Your task to perform on an android device: toggle translation in the chrome app Image 0: 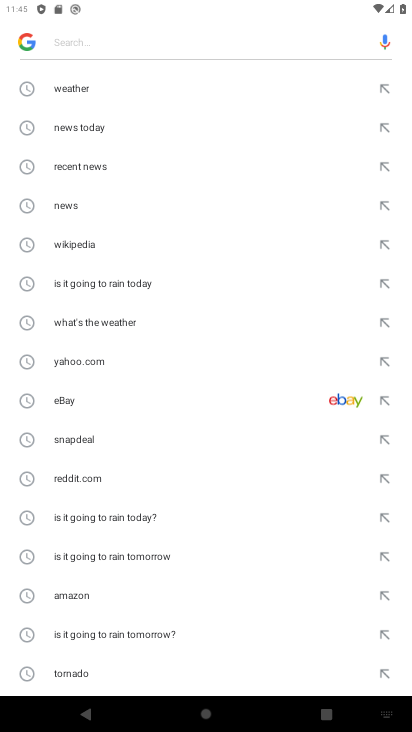
Step 0: press home button
Your task to perform on an android device: toggle translation in the chrome app Image 1: 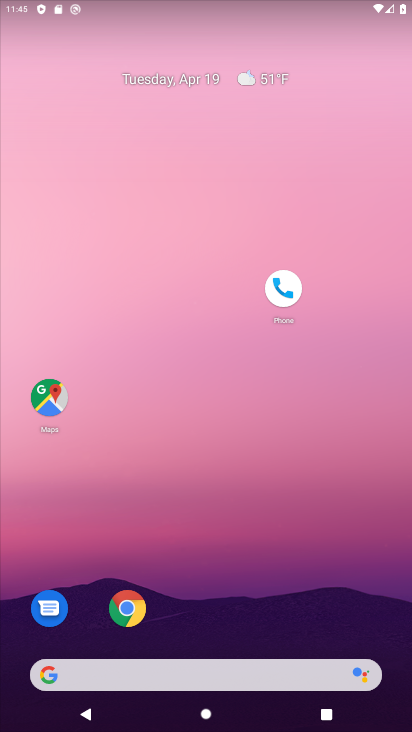
Step 1: click (129, 612)
Your task to perform on an android device: toggle translation in the chrome app Image 2: 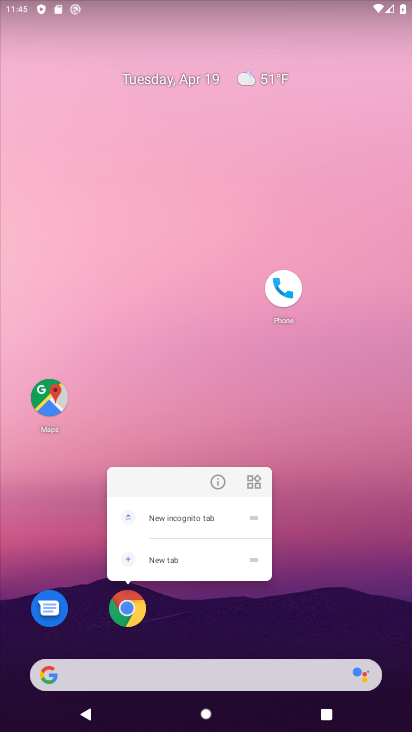
Step 2: click (137, 606)
Your task to perform on an android device: toggle translation in the chrome app Image 3: 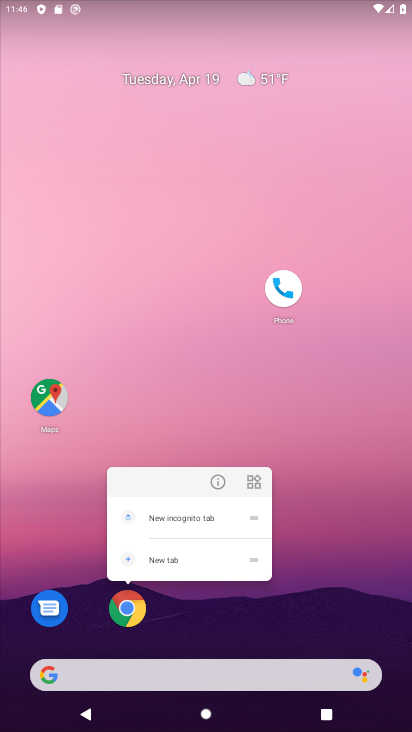
Step 3: click (129, 607)
Your task to perform on an android device: toggle translation in the chrome app Image 4: 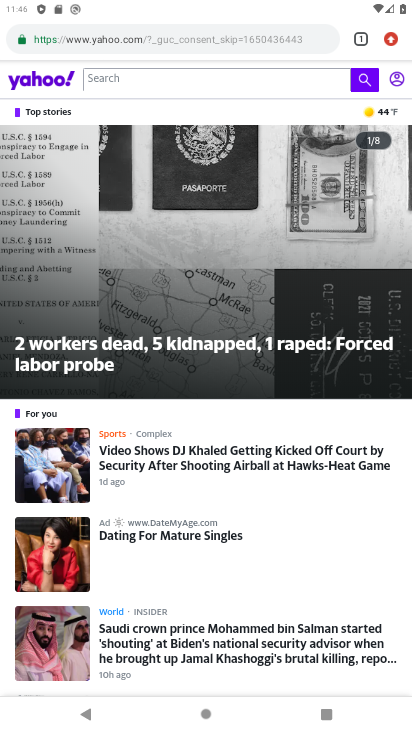
Step 4: click (388, 40)
Your task to perform on an android device: toggle translation in the chrome app Image 5: 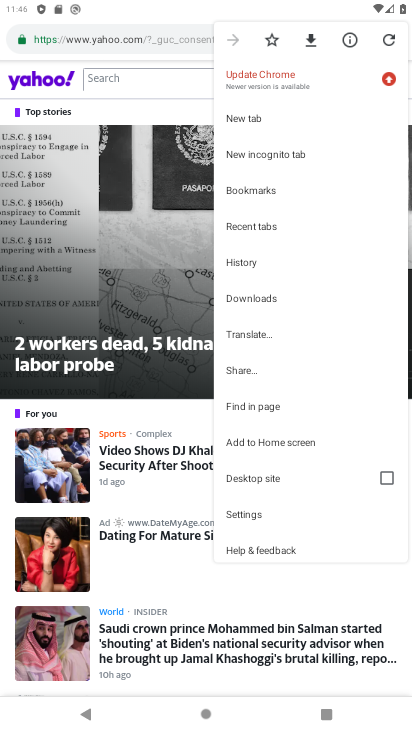
Step 5: click (243, 517)
Your task to perform on an android device: toggle translation in the chrome app Image 6: 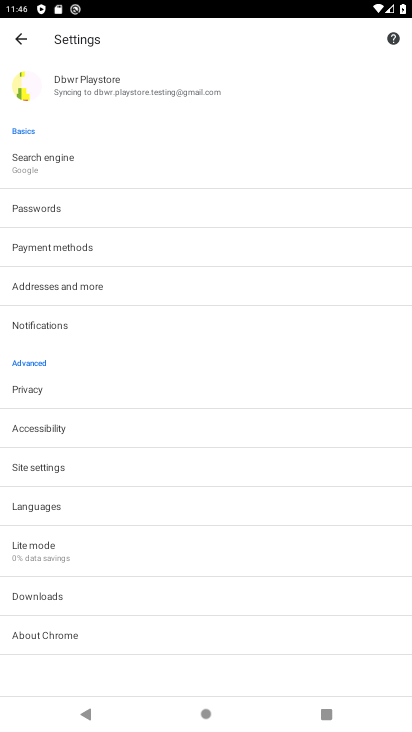
Step 6: click (201, 504)
Your task to perform on an android device: toggle translation in the chrome app Image 7: 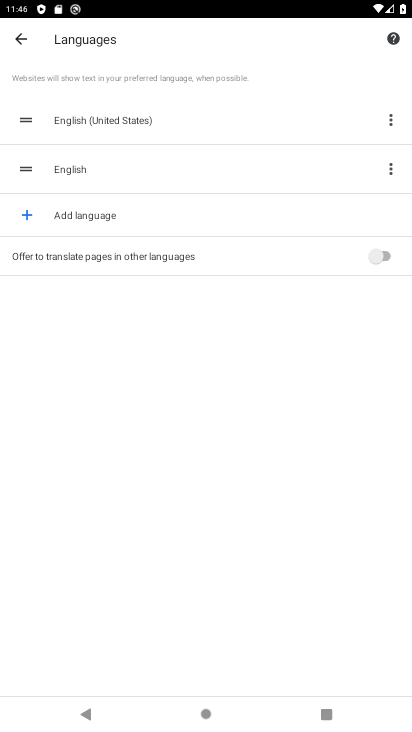
Step 7: click (366, 259)
Your task to perform on an android device: toggle translation in the chrome app Image 8: 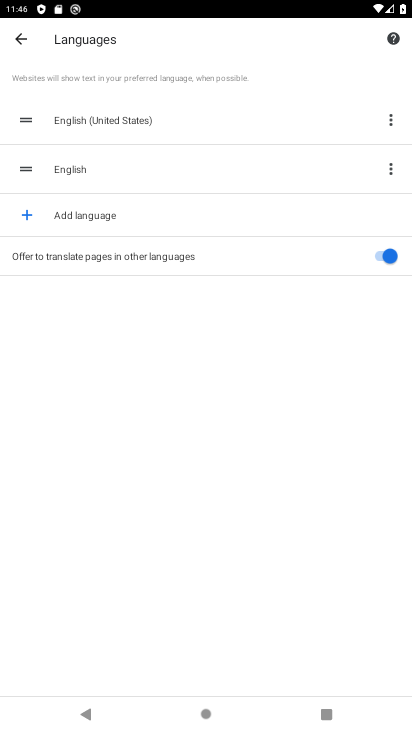
Step 8: task complete